Your task to perform on an android device: Is it going to rain tomorrow? Image 0: 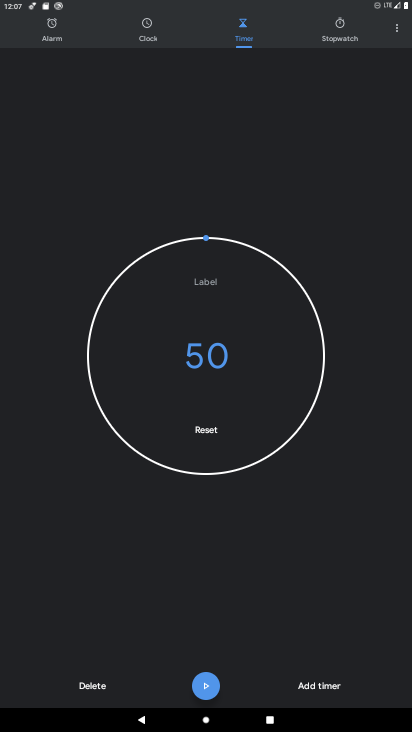
Step 0: press home button
Your task to perform on an android device: Is it going to rain tomorrow? Image 1: 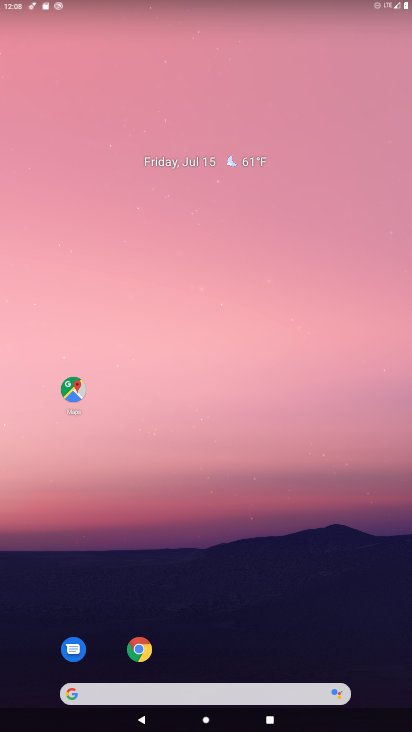
Step 1: click (105, 695)
Your task to perform on an android device: Is it going to rain tomorrow? Image 2: 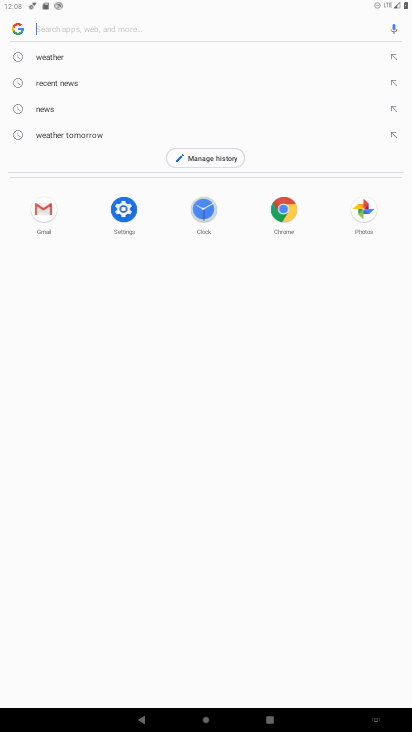
Step 2: click (48, 55)
Your task to perform on an android device: Is it going to rain tomorrow? Image 3: 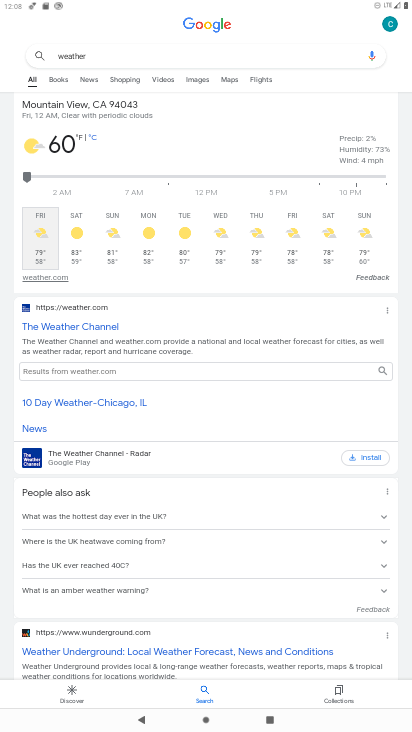
Step 3: click (100, 57)
Your task to perform on an android device: Is it going to rain tomorrow? Image 4: 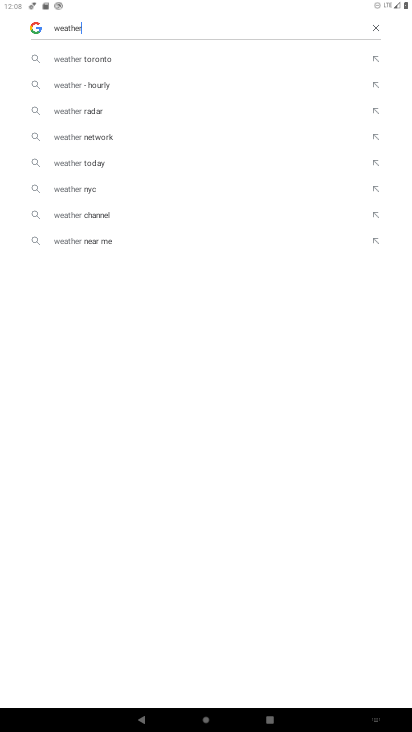
Step 4: type " tomorrow"
Your task to perform on an android device: Is it going to rain tomorrow? Image 5: 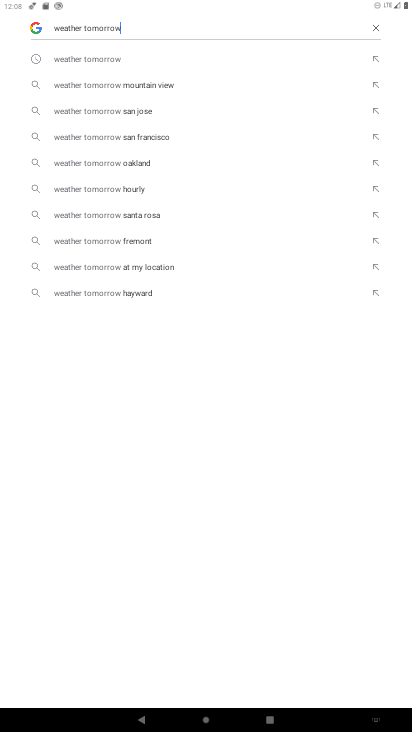
Step 5: click (95, 61)
Your task to perform on an android device: Is it going to rain tomorrow? Image 6: 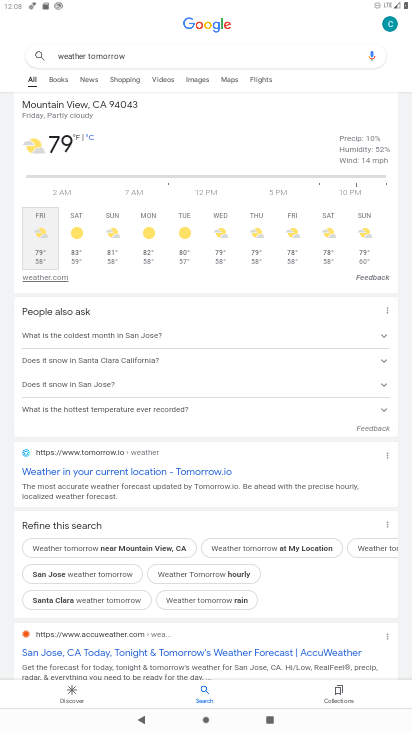
Step 6: task complete